Your task to perform on an android device: Open network settings Image 0: 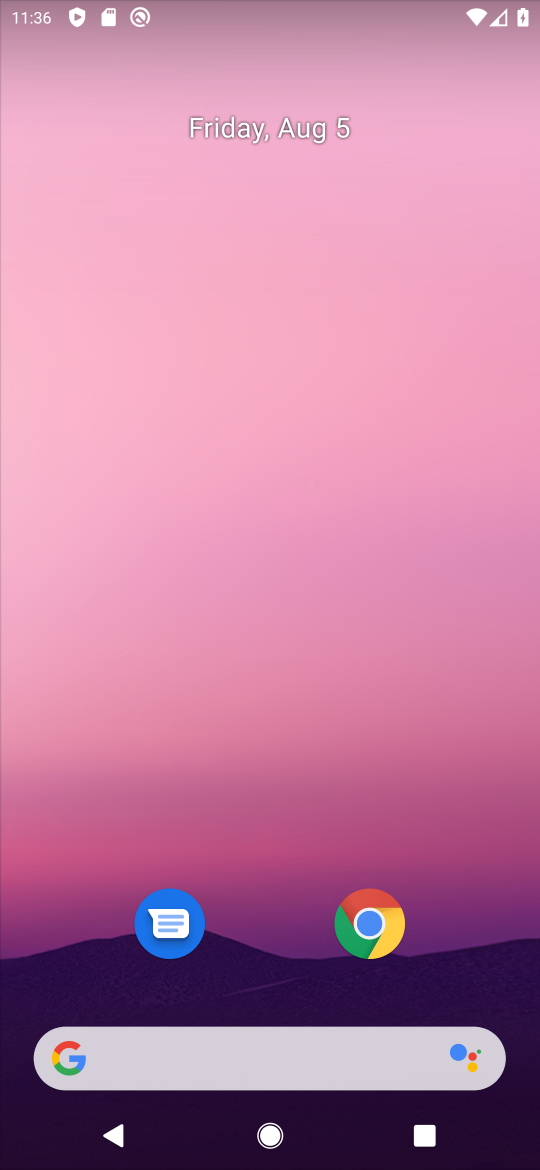
Step 0: drag from (332, 328) to (271, 61)
Your task to perform on an android device: Open network settings Image 1: 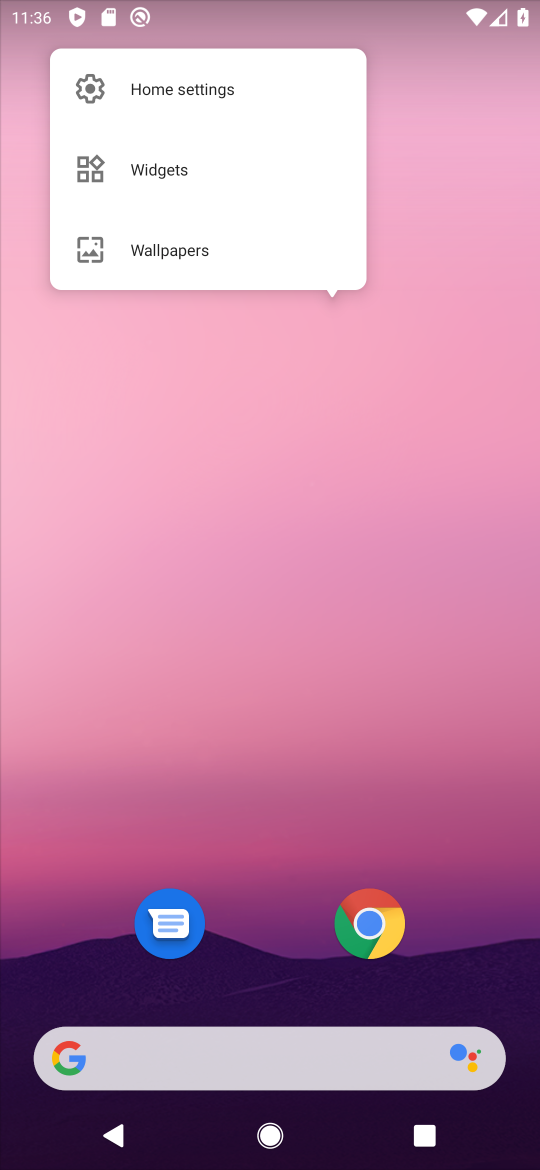
Step 1: drag from (500, 984) to (389, 280)
Your task to perform on an android device: Open network settings Image 2: 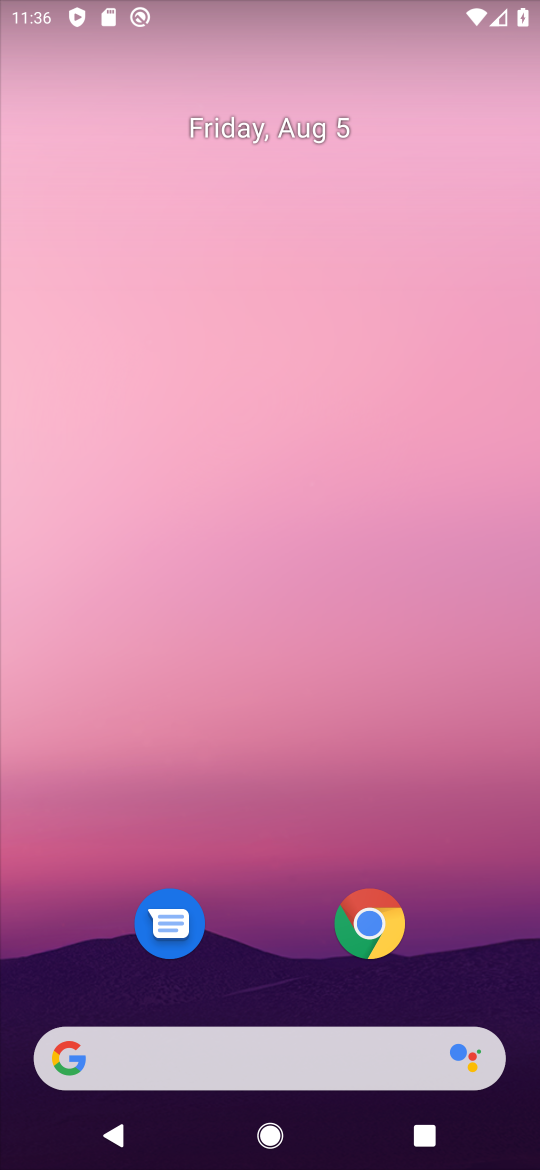
Step 2: drag from (289, 996) to (247, 217)
Your task to perform on an android device: Open network settings Image 3: 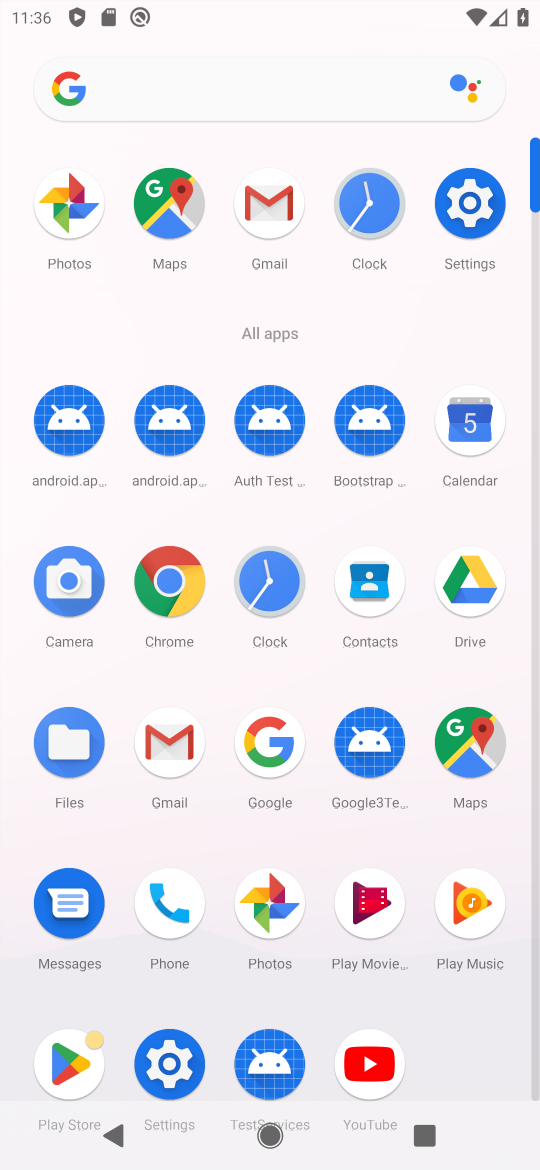
Step 3: click (458, 214)
Your task to perform on an android device: Open network settings Image 4: 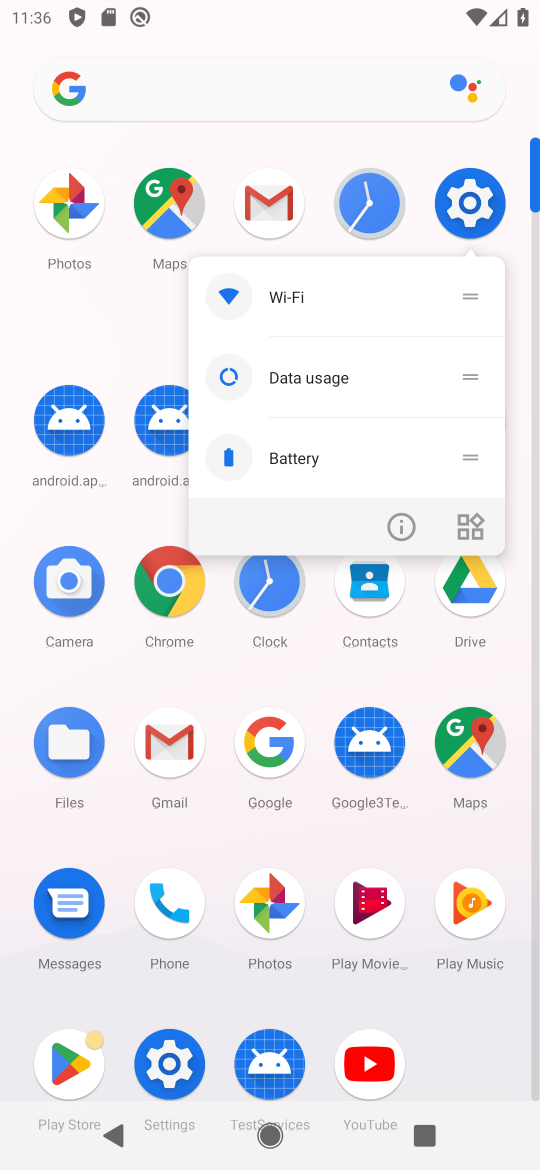
Step 4: click (458, 214)
Your task to perform on an android device: Open network settings Image 5: 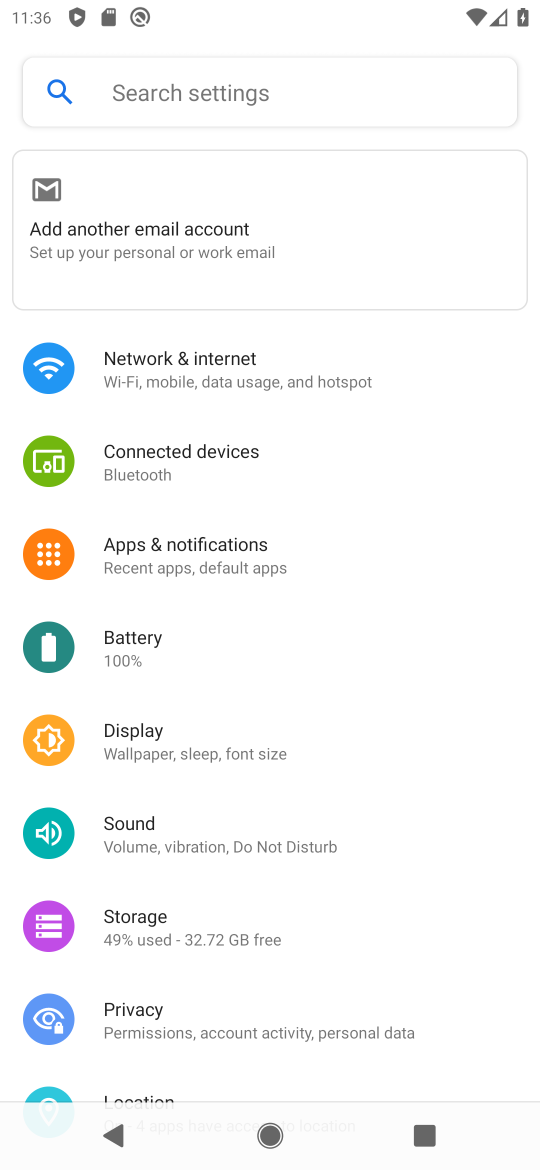
Step 5: click (373, 382)
Your task to perform on an android device: Open network settings Image 6: 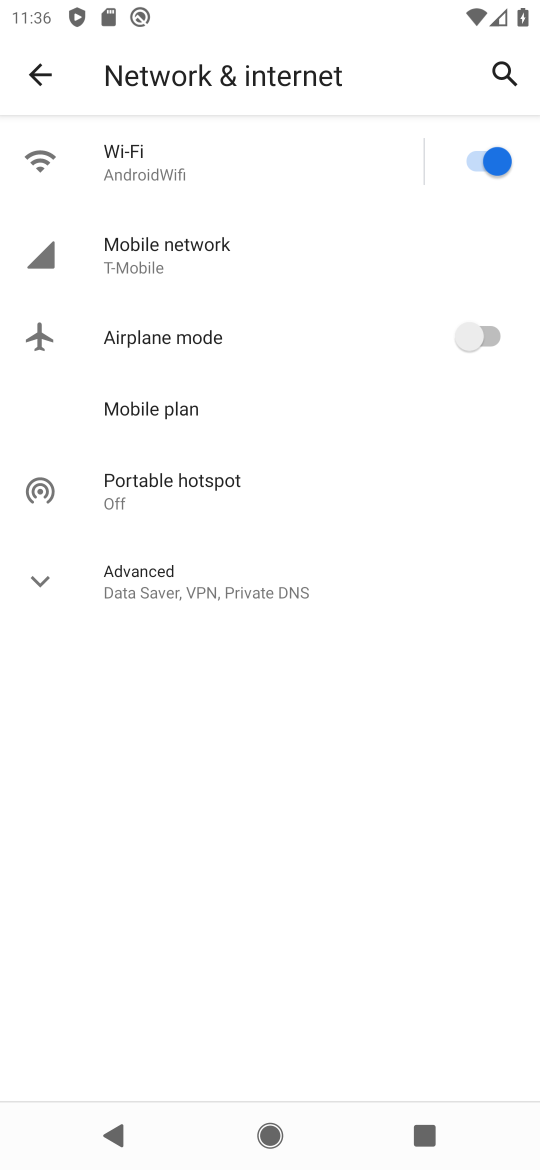
Step 6: task complete